Your task to perform on an android device: Open Yahoo.com Image 0: 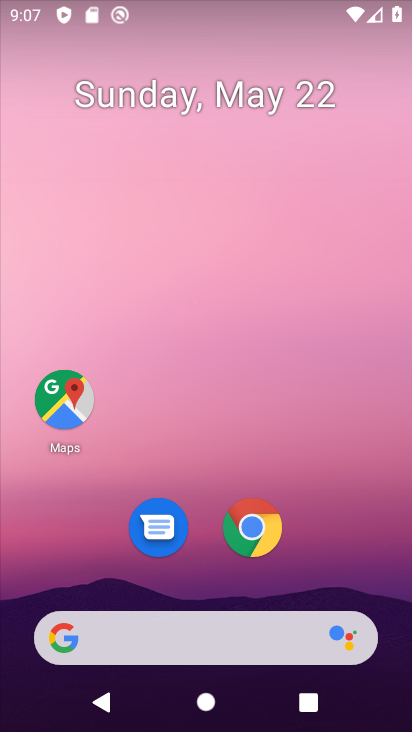
Step 0: click (235, 531)
Your task to perform on an android device: Open Yahoo.com Image 1: 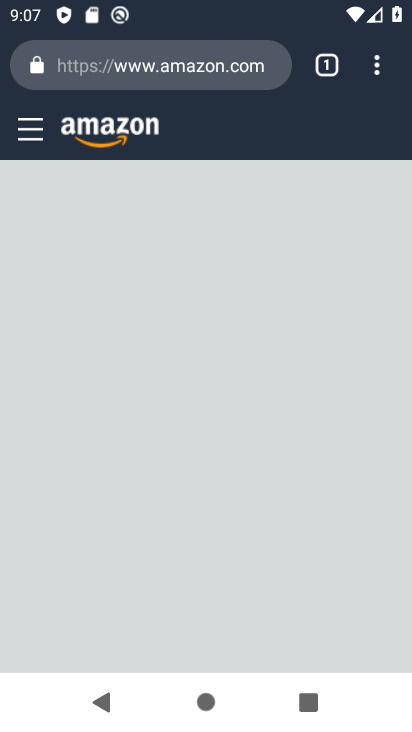
Step 1: click (243, 56)
Your task to perform on an android device: Open Yahoo.com Image 2: 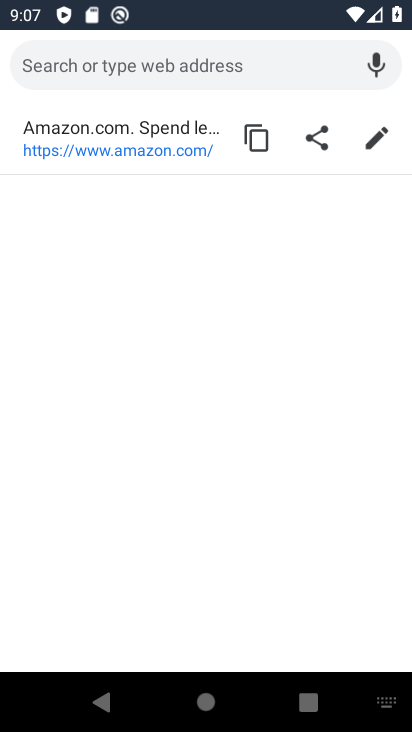
Step 2: type "yahoo.com"
Your task to perform on an android device: Open Yahoo.com Image 3: 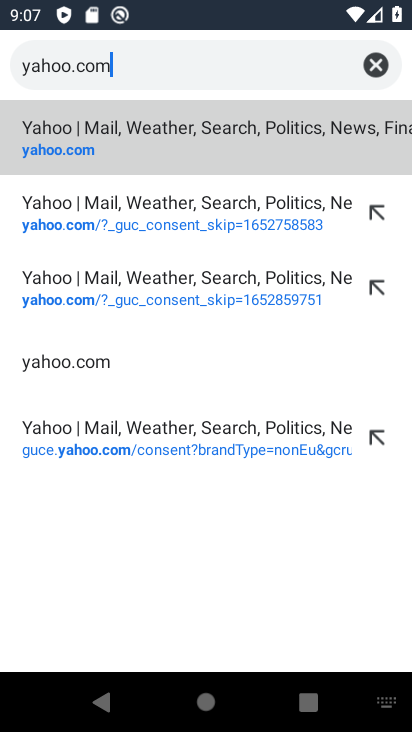
Step 3: click (119, 145)
Your task to perform on an android device: Open Yahoo.com Image 4: 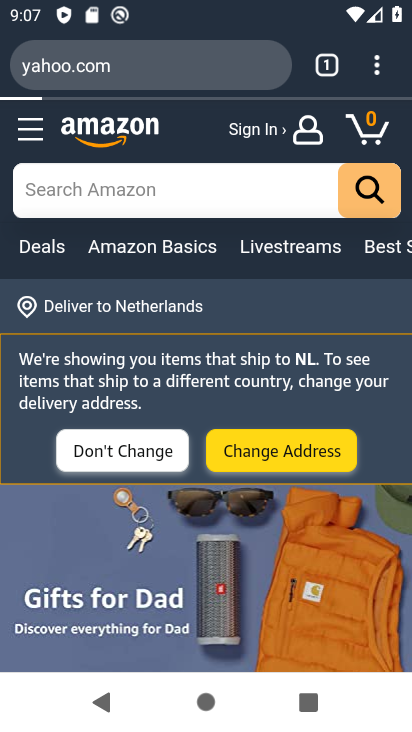
Step 4: task complete